Your task to perform on an android device: open app "Truecaller" (install if not already installed) Image 0: 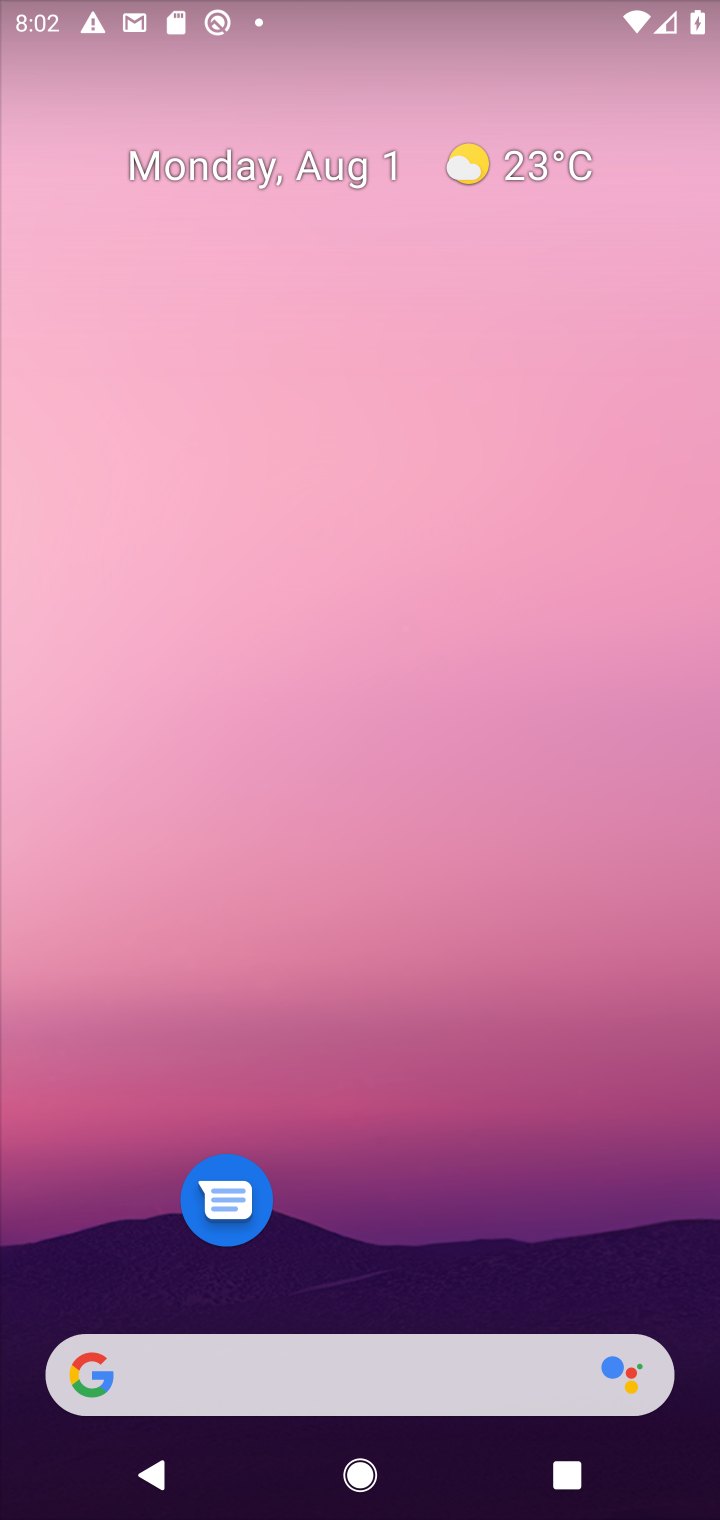
Step 0: drag from (363, 637) to (432, 117)
Your task to perform on an android device: open app "Truecaller" (install if not already installed) Image 1: 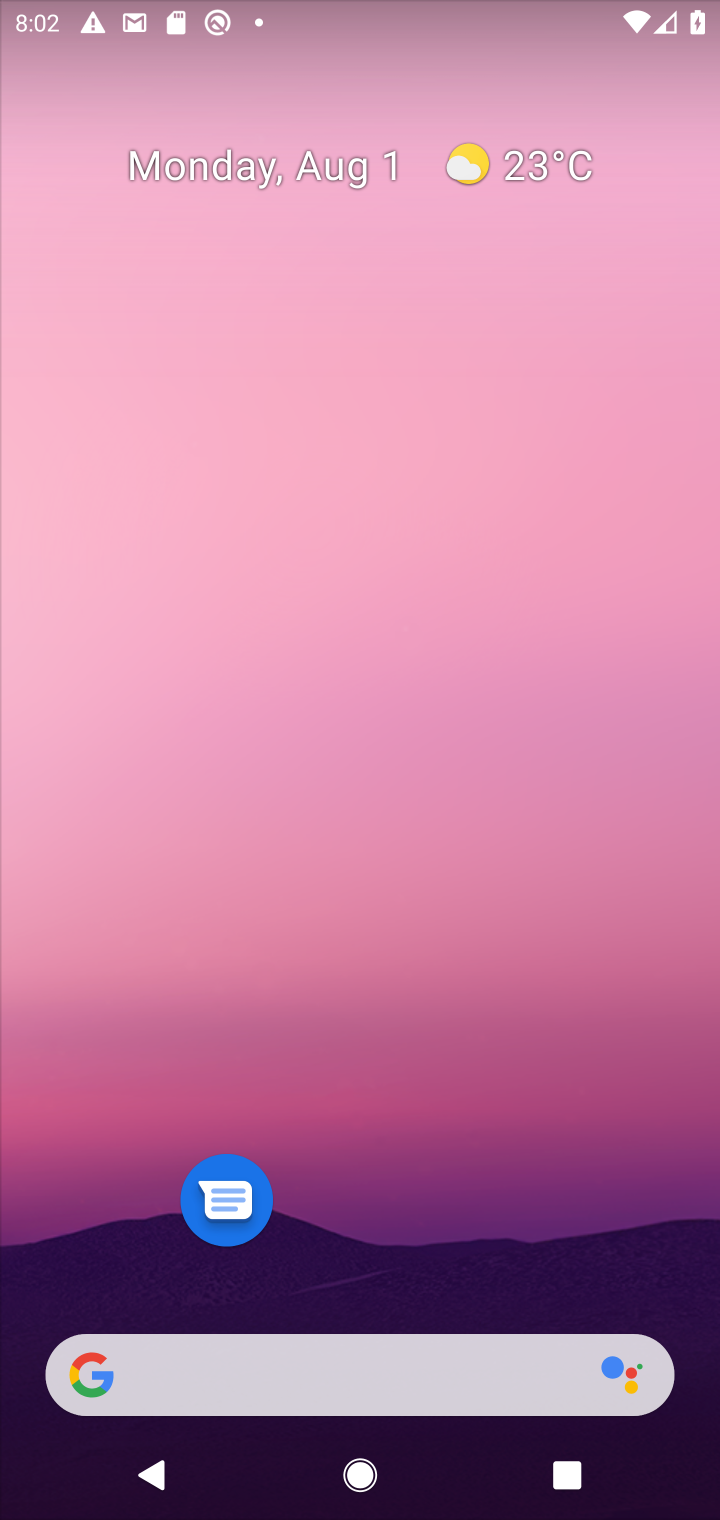
Step 1: drag from (498, 1016) to (498, 256)
Your task to perform on an android device: open app "Truecaller" (install if not already installed) Image 2: 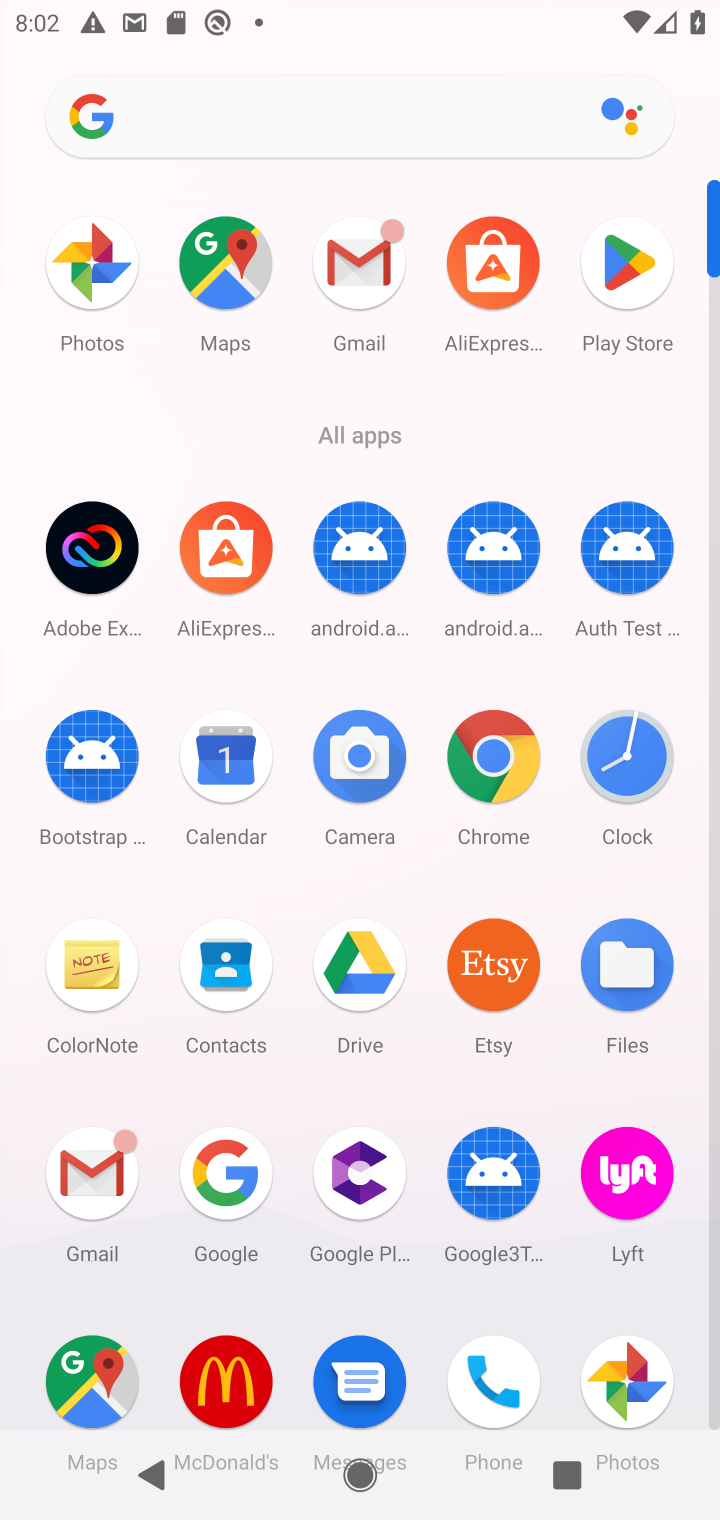
Step 2: click (613, 286)
Your task to perform on an android device: open app "Truecaller" (install if not already installed) Image 3: 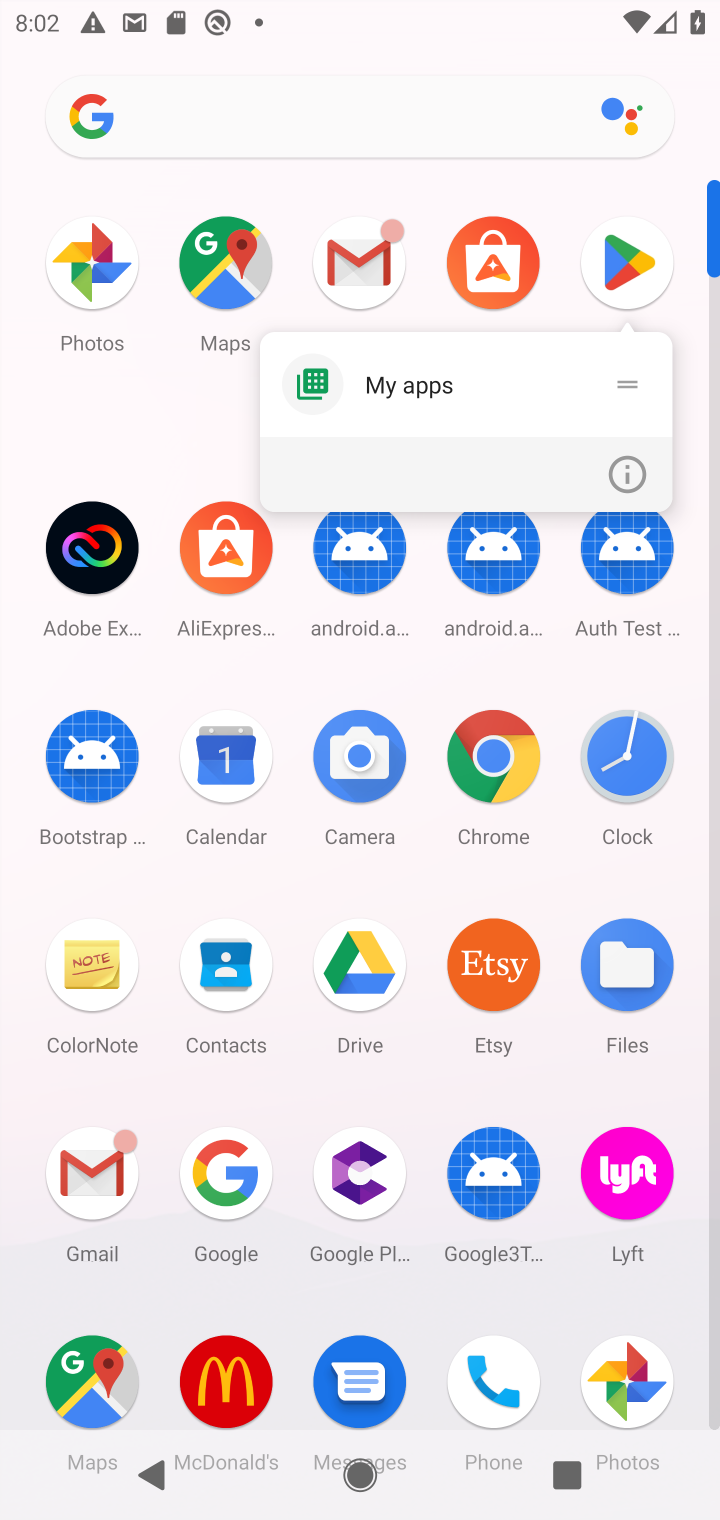
Step 3: click (650, 275)
Your task to perform on an android device: open app "Truecaller" (install if not already installed) Image 4: 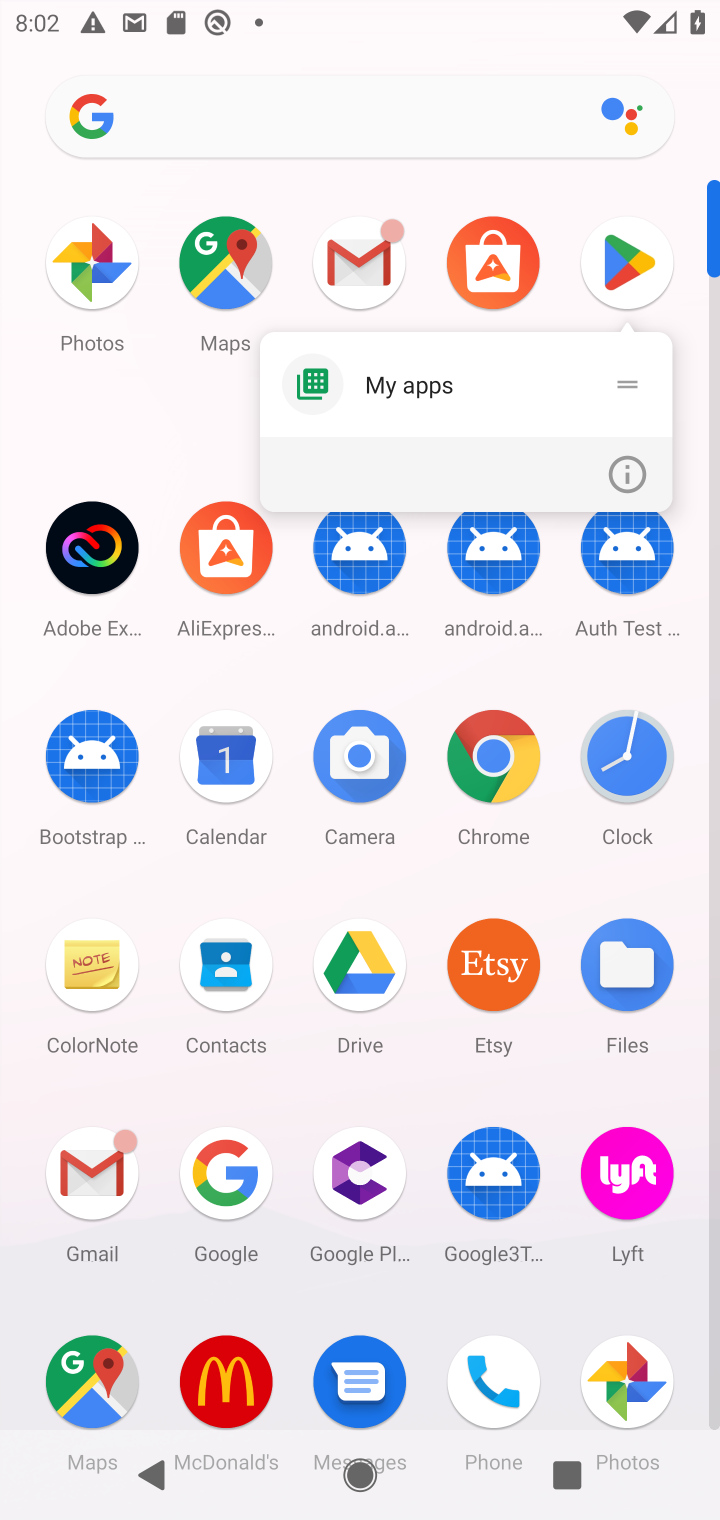
Step 4: click (643, 242)
Your task to perform on an android device: open app "Truecaller" (install if not already installed) Image 5: 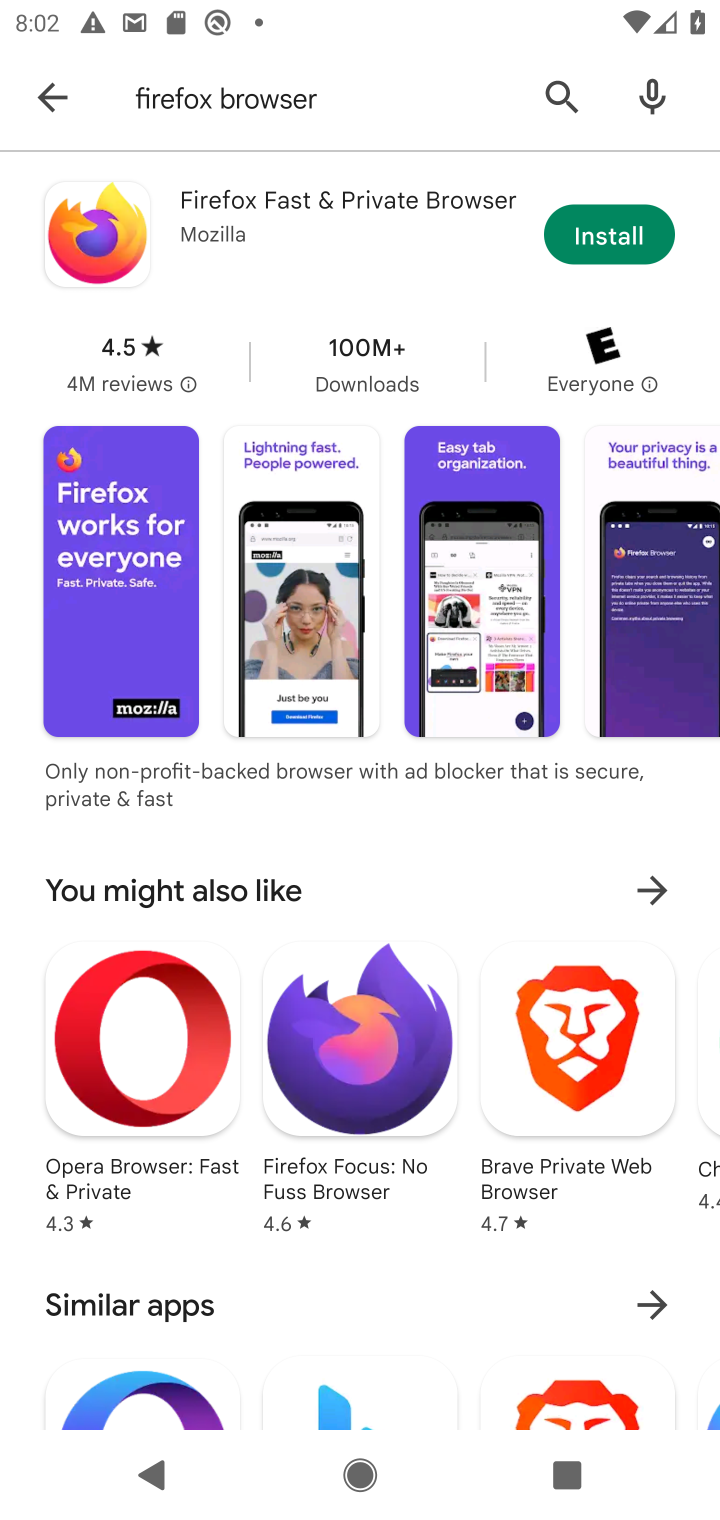
Step 5: click (560, 97)
Your task to perform on an android device: open app "Truecaller" (install if not already installed) Image 6: 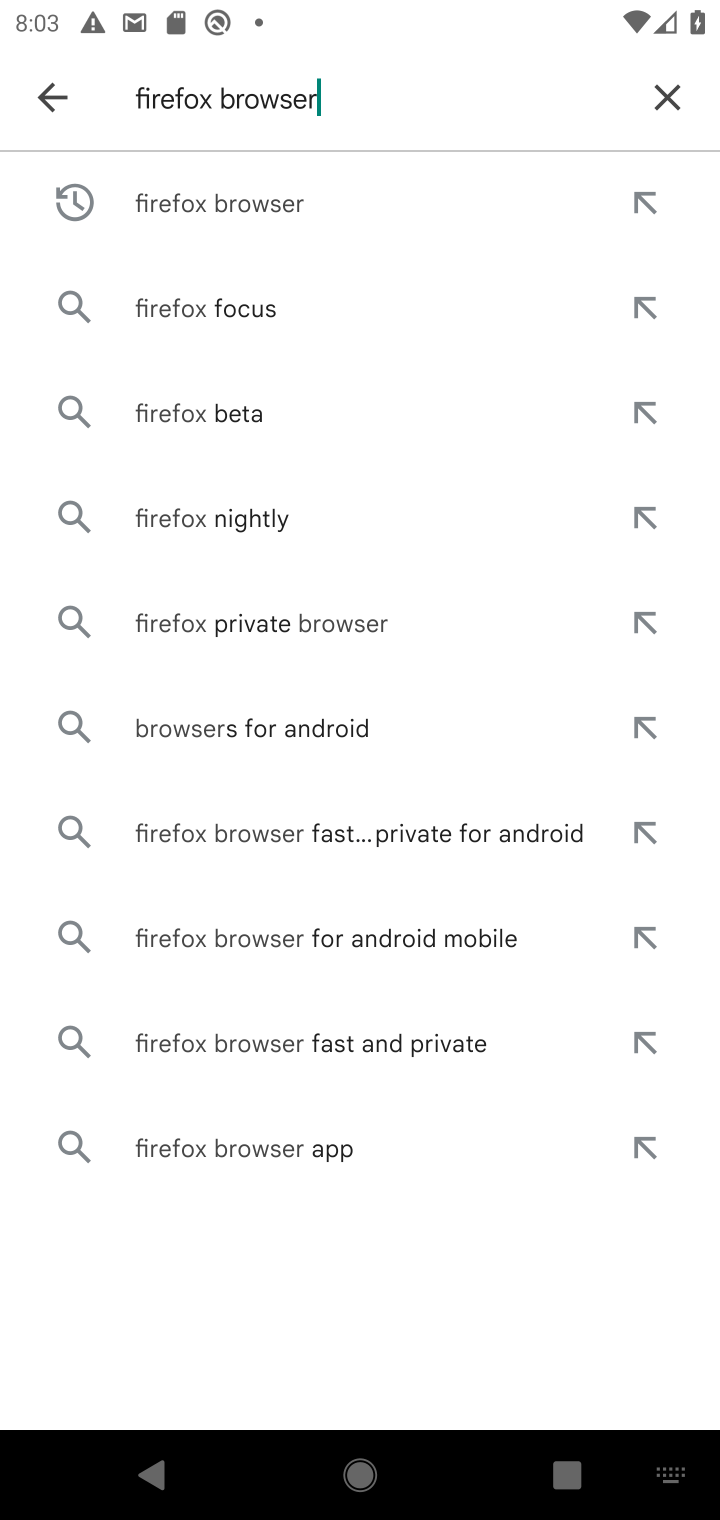
Step 6: click (668, 98)
Your task to perform on an android device: open app "Truecaller" (install if not already installed) Image 7: 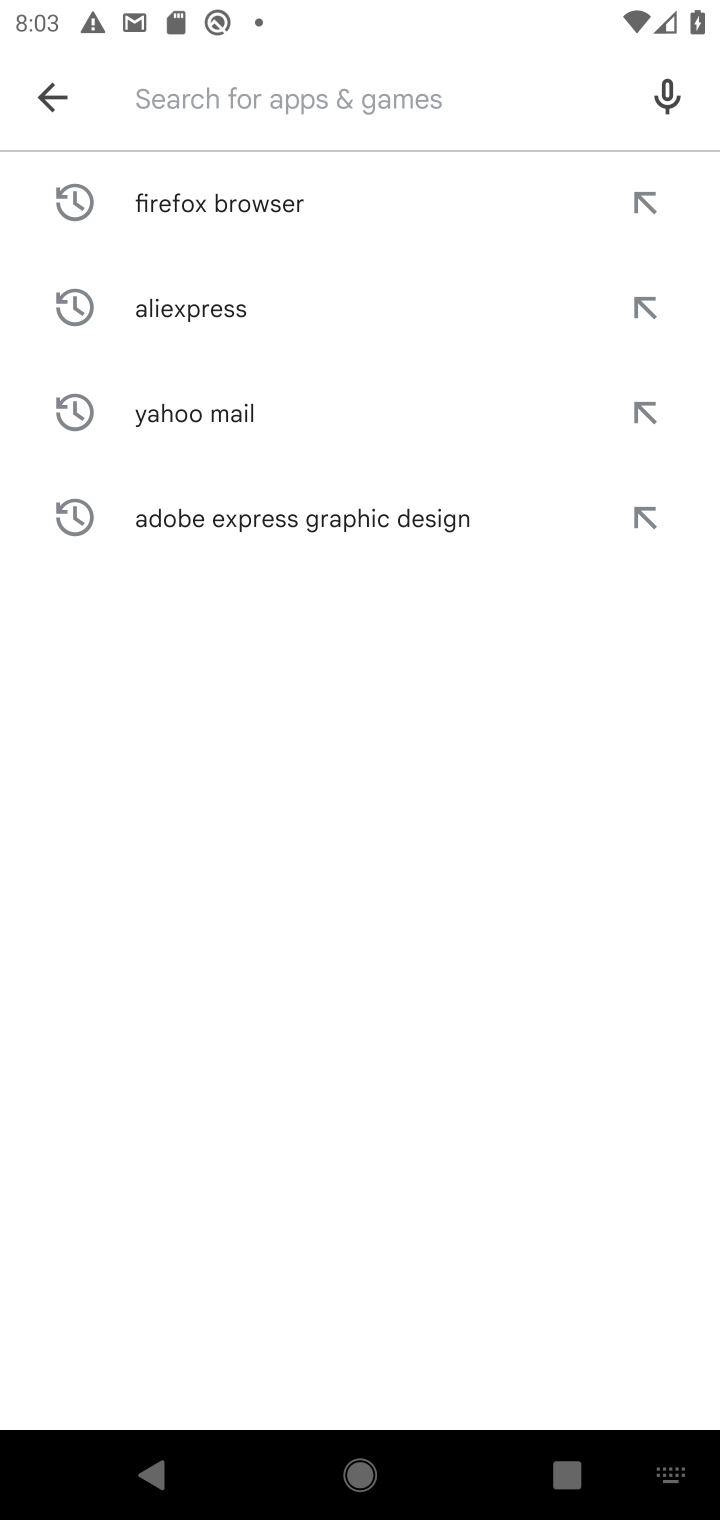
Step 7: click (229, 100)
Your task to perform on an android device: open app "Truecaller" (install if not already installed) Image 8: 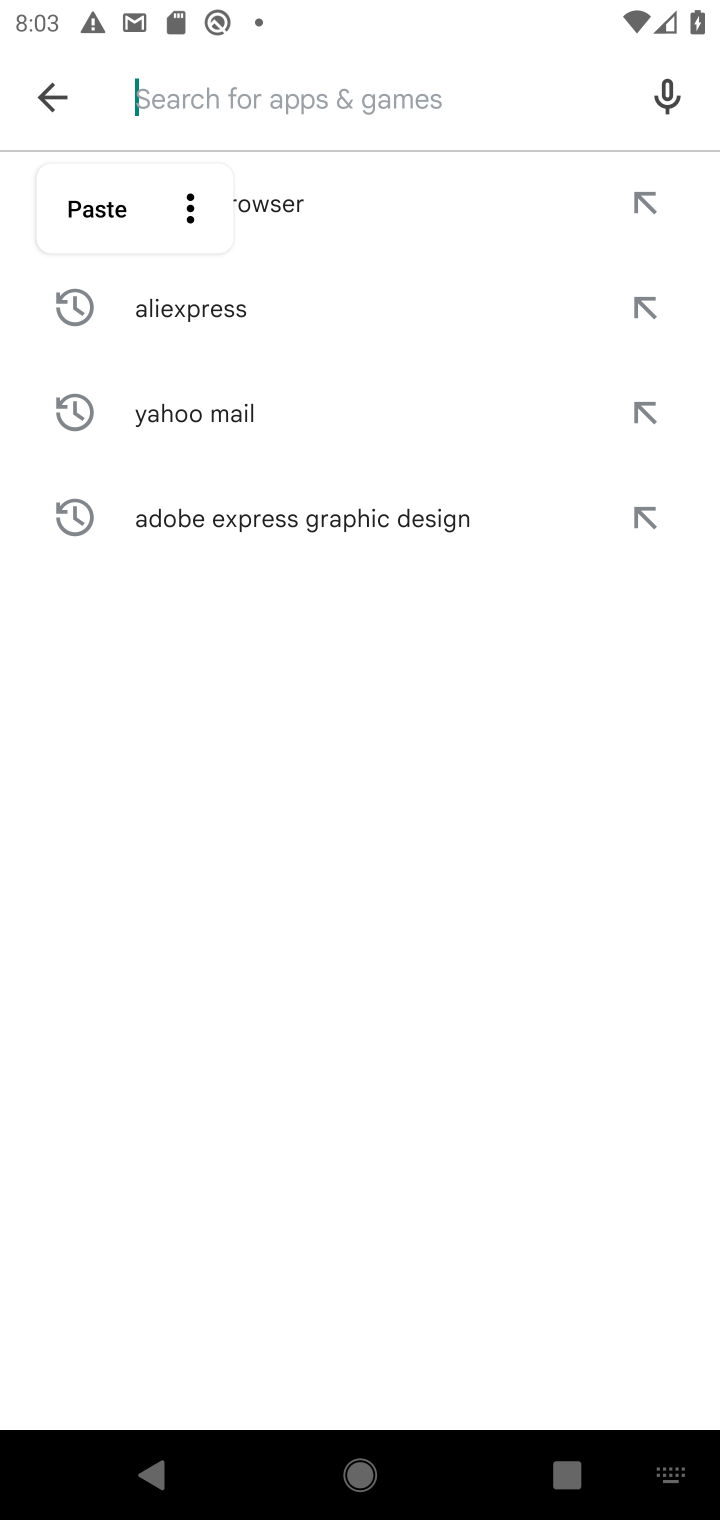
Step 8: type "Truecaller"
Your task to perform on an android device: open app "Truecaller" (install if not already installed) Image 9: 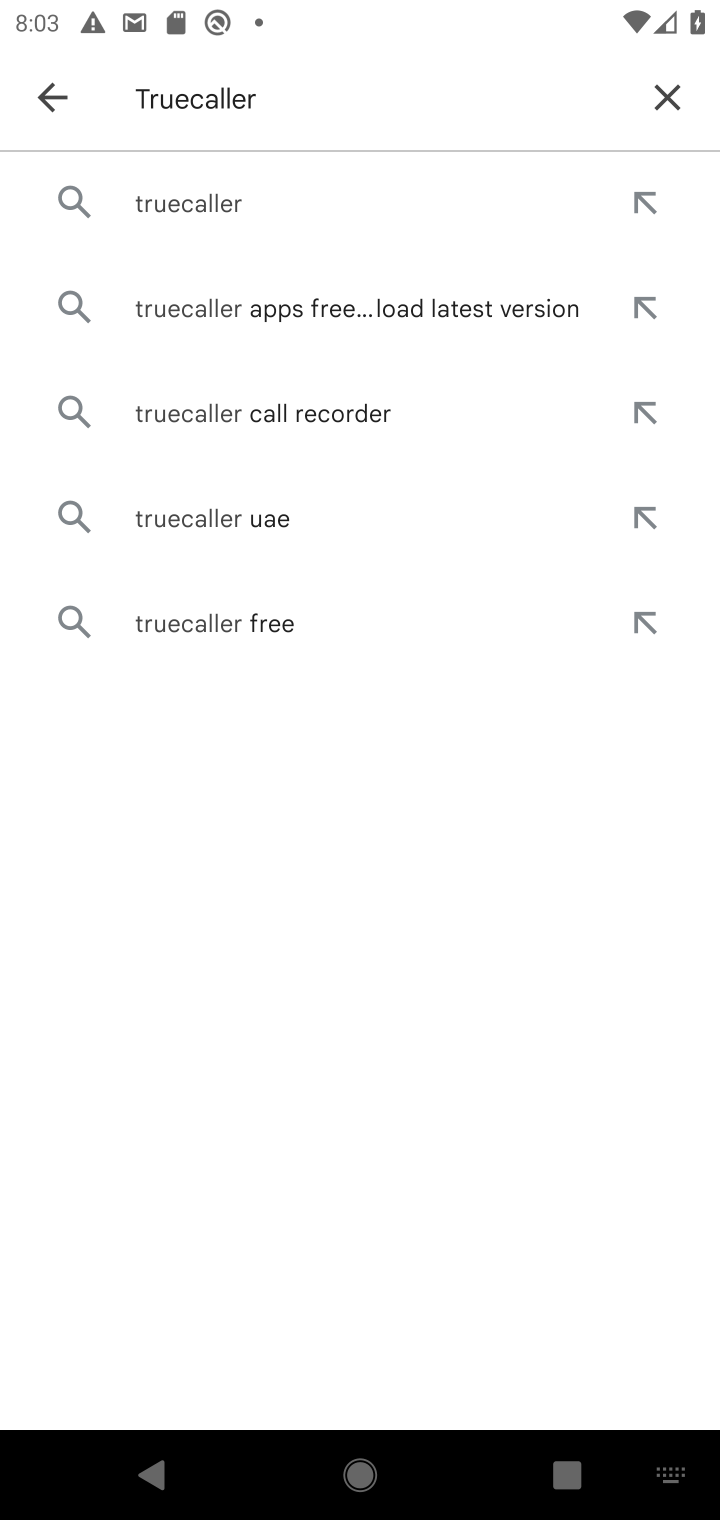
Step 9: click (182, 183)
Your task to perform on an android device: open app "Truecaller" (install if not already installed) Image 10: 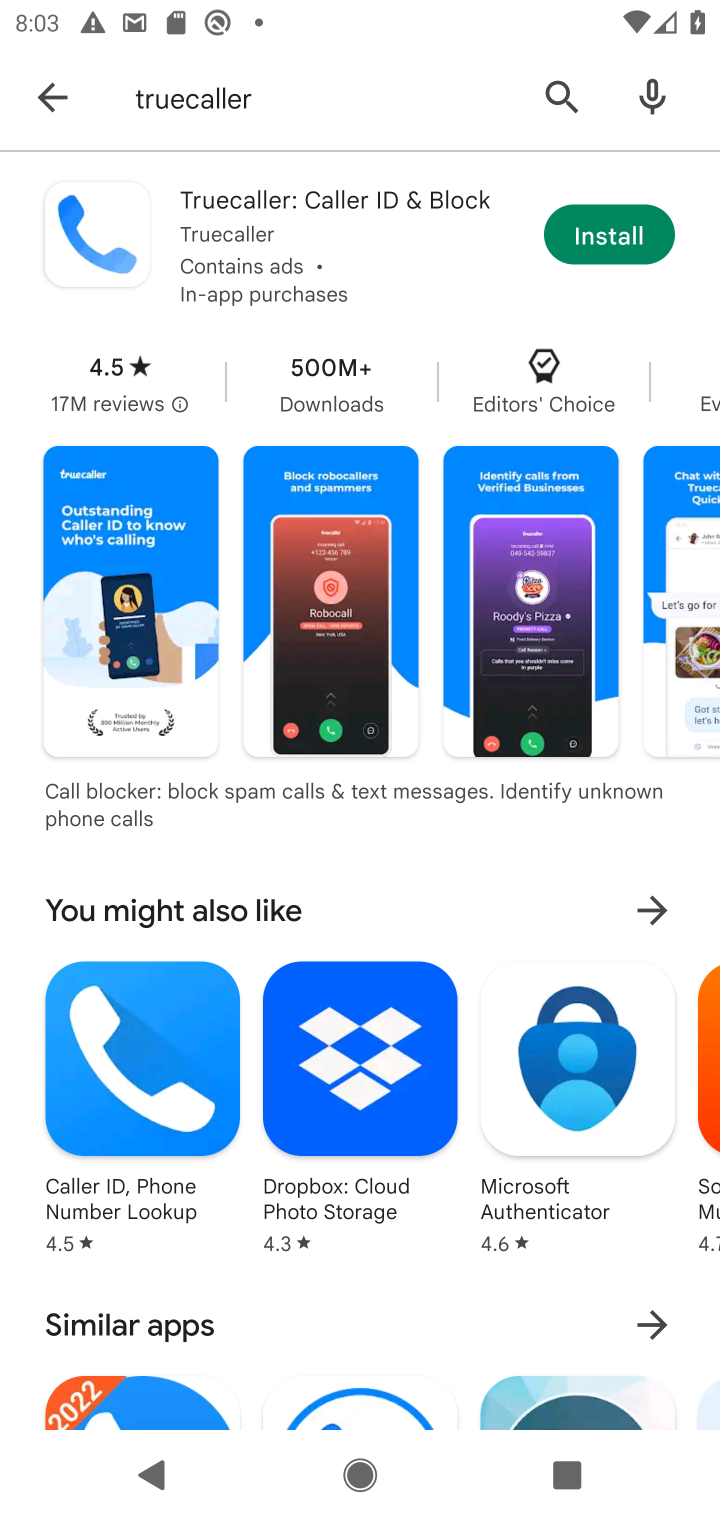
Step 10: click (629, 221)
Your task to perform on an android device: open app "Truecaller" (install if not already installed) Image 11: 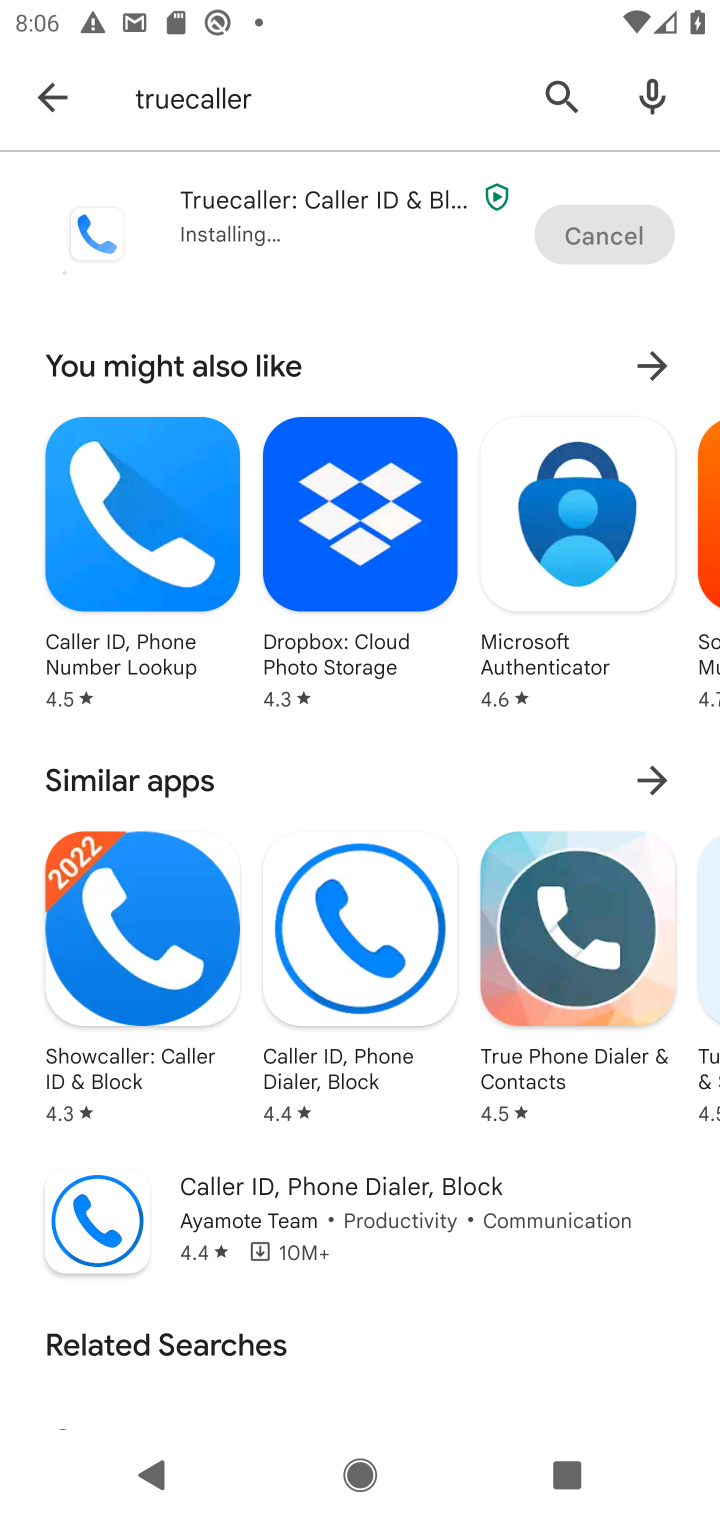
Step 11: task complete